Your task to perform on an android device: Open Google Chrome and click the shortcut for Amazon.com Image 0: 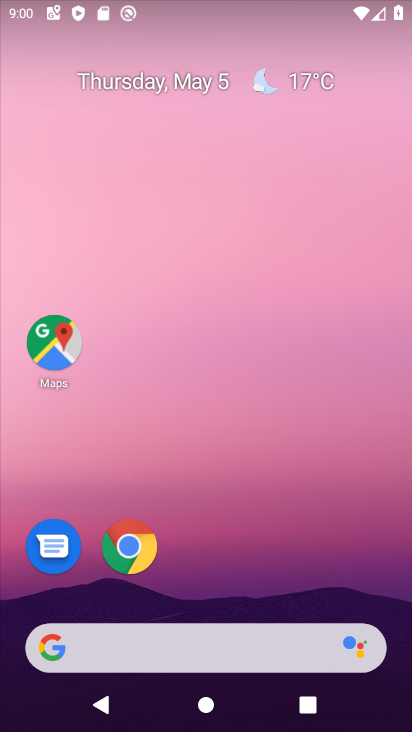
Step 0: drag from (226, 612) to (319, 143)
Your task to perform on an android device: Open Google Chrome and click the shortcut for Amazon.com Image 1: 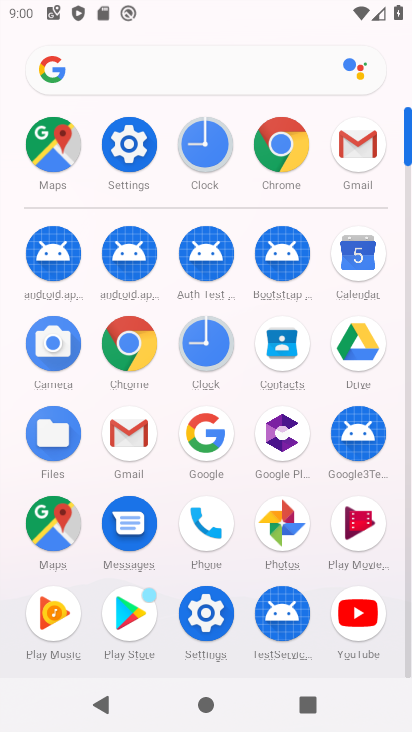
Step 1: click (269, 159)
Your task to perform on an android device: Open Google Chrome and click the shortcut for Amazon.com Image 2: 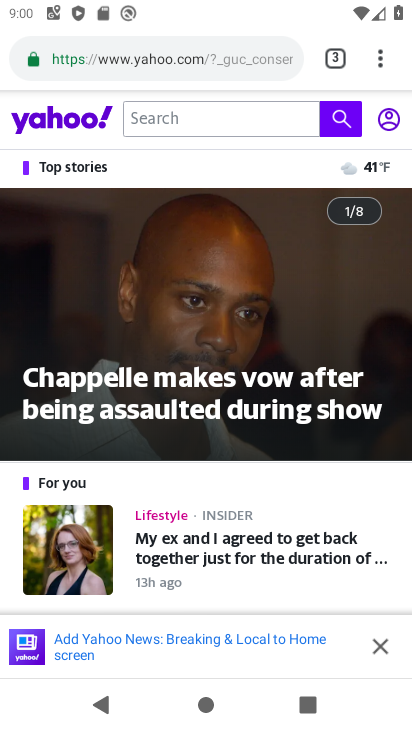
Step 2: drag from (377, 66) to (174, 124)
Your task to perform on an android device: Open Google Chrome and click the shortcut for Amazon.com Image 3: 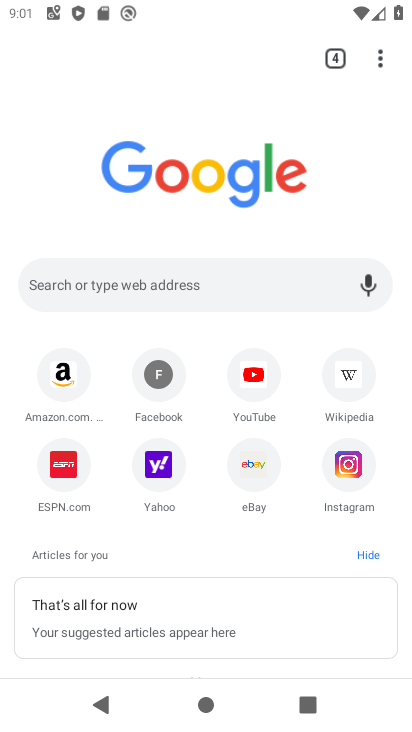
Step 3: click (61, 376)
Your task to perform on an android device: Open Google Chrome and click the shortcut for Amazon.com Image 4: 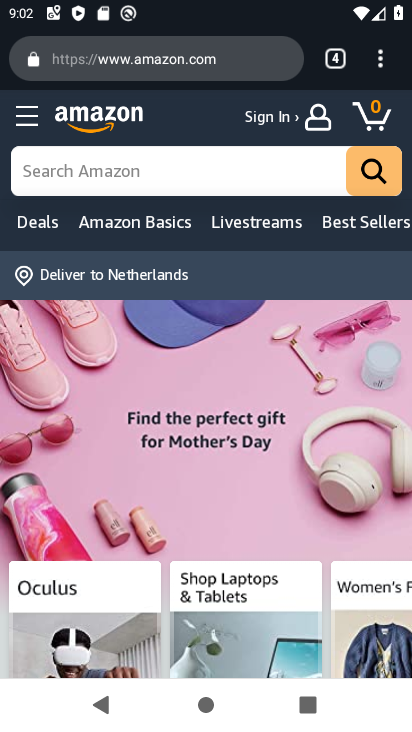
Step 4: task complete